Your task to perform on an android device: Open my contact list Image 0: 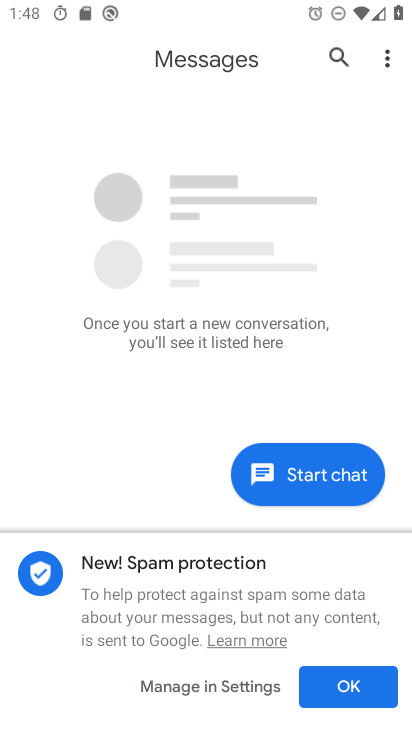
Step 0: press home button
Your task to perform on an android device: Open my contact list Image 1: 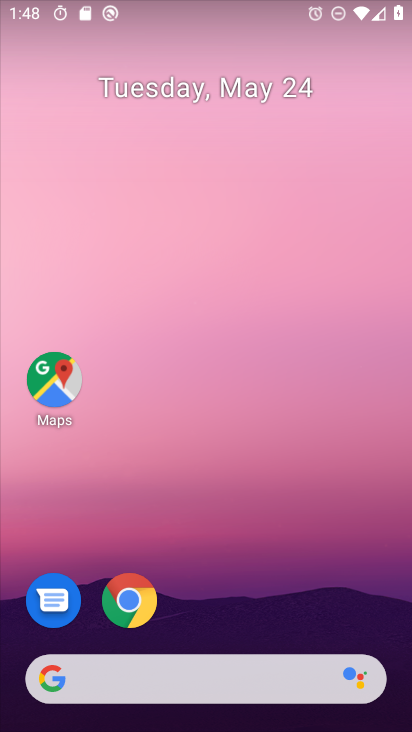
Step 1: drag from (243, 609) to (227, 109)
Your task to perform on an android device: Open my contact list Image 2: 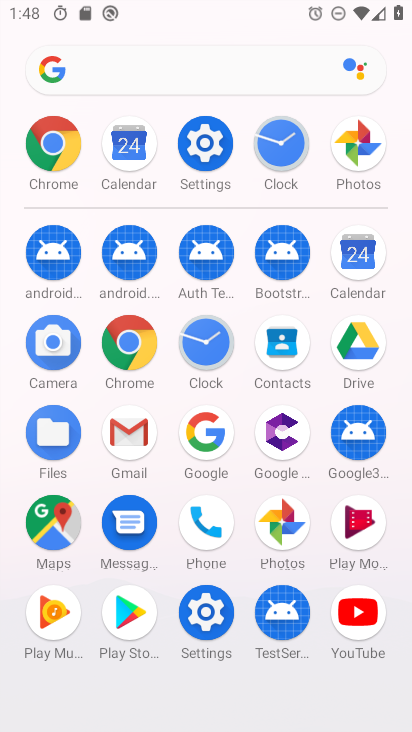
Step 2: click (296, 335)
Your task to perform on an android device: Open my contact list Image 3: 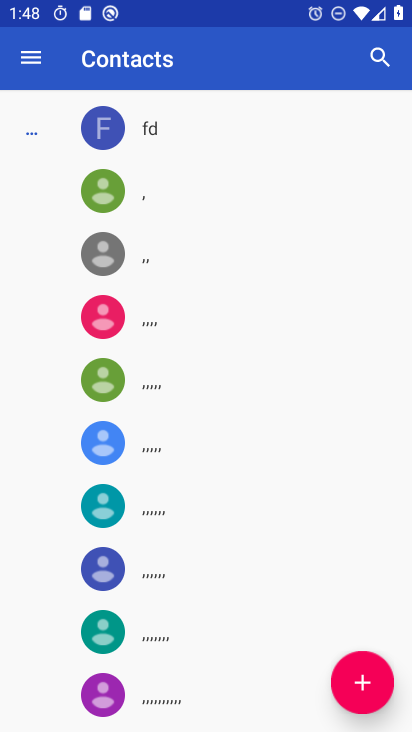
Step 3: task complete